Your task to perform on an android device: Open Android settings Image 0: 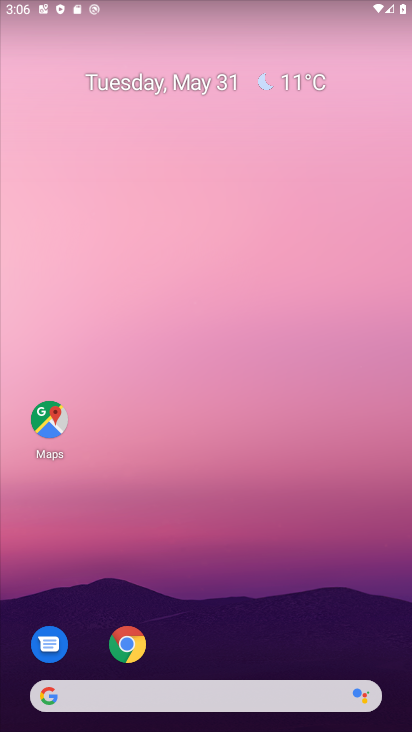
Step 0: drag from (312, 653) to (267, 88)
Your task to perform on an android device: Open Android settings Image 1: 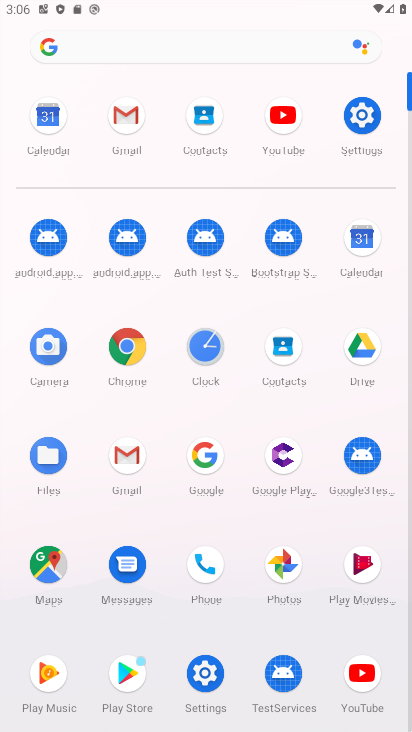
Step 1: click (355, 110)
Your task to perform on an android device: Open Android settings Image 2: 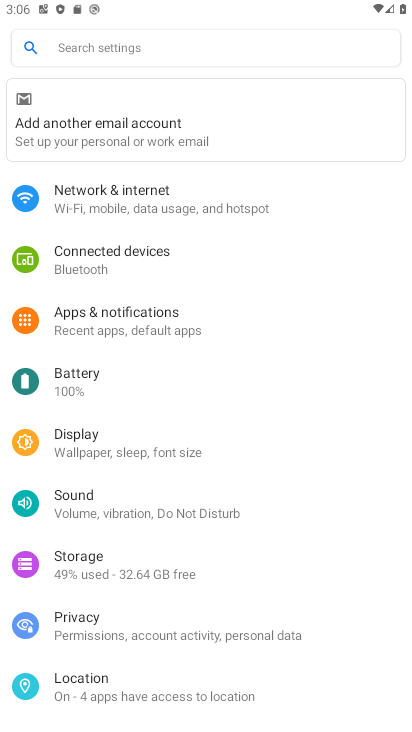
Step 2: drag from (214, 673) to (220, 4)
Your task to perform on an android device: Open Android settings Image 3: 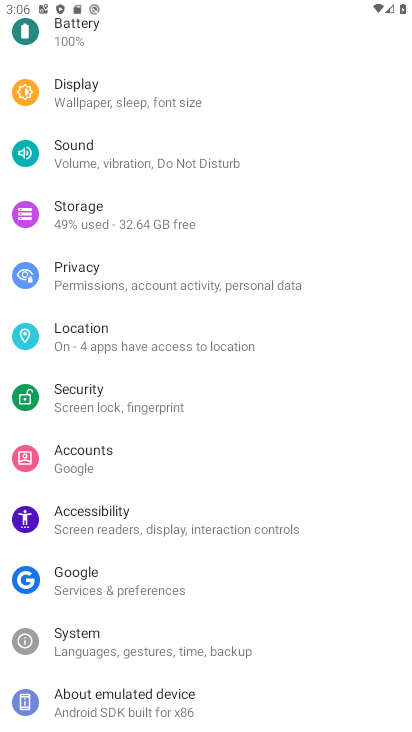
Step 3: click (103, 699)
Your task to perform on an android device: Open Android settings Image 4: 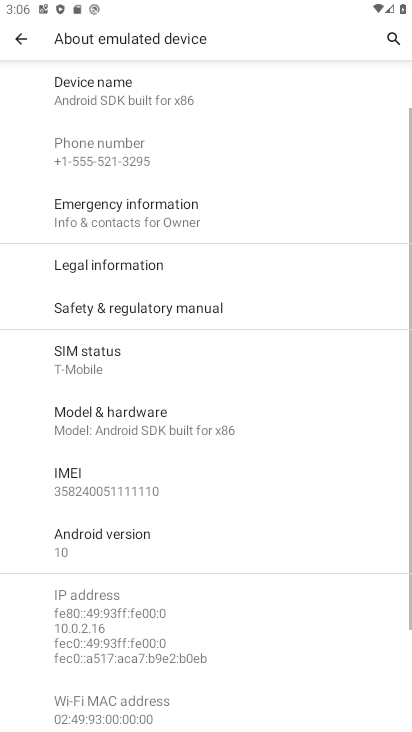
Step 4: task complete